Your task to perform on an android device: Open Youtube and go to the subscriptions tab Image 0: 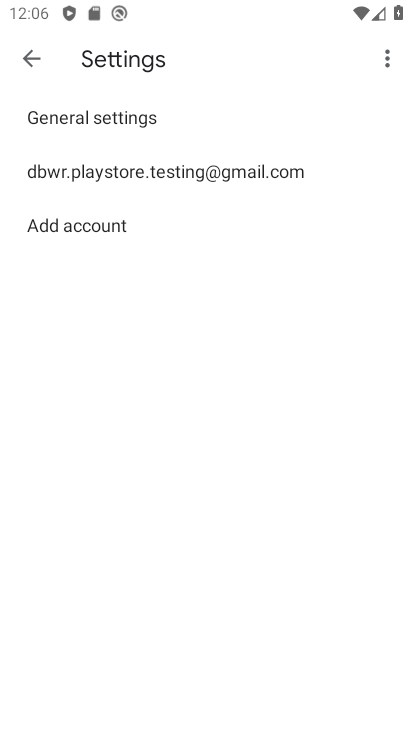
Step 0: press back button
Your task to perform on an android device: Open Youtube and go to the subscriptions tab Image 1: 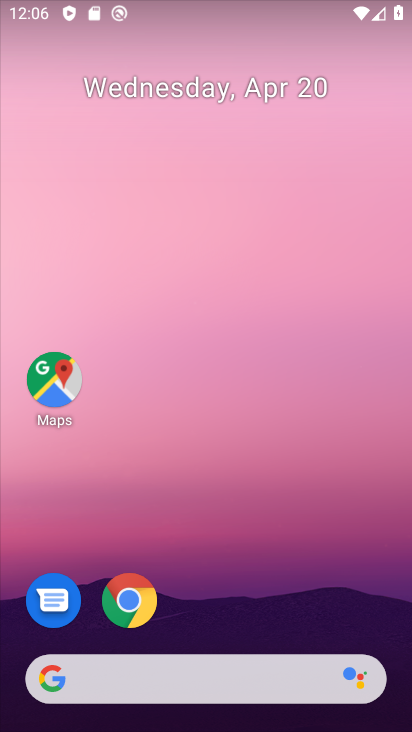
Step 1: drag from (208, 622) to (281, 67)
Your task to perform on an android device: Open Youtube and go to the subscriptions tab Image 2: 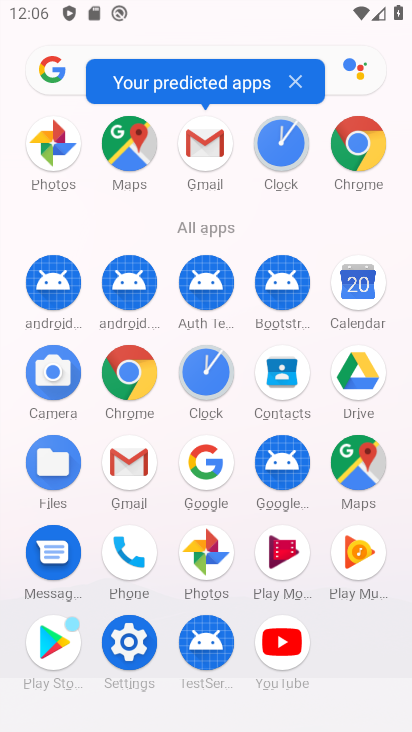
Step 2: click (293, 642)
Your task to perform on an android device: Open Youtube and go to the subscriptions tab Image 3: 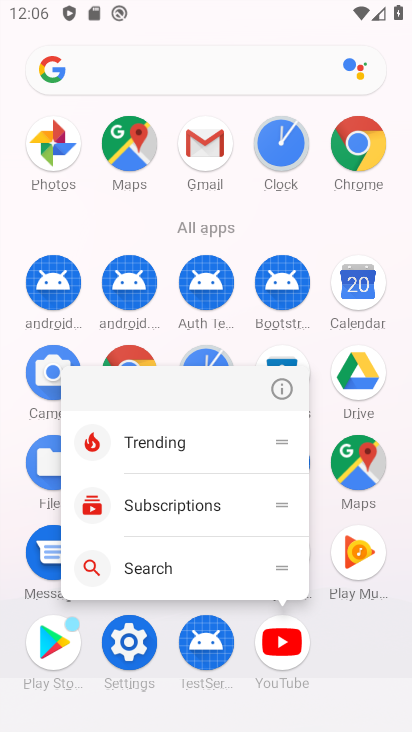
Step 3: click (285, 641)
Your task to perform on an android device: Open Youtube and go to the subscriptions tab Image 4: 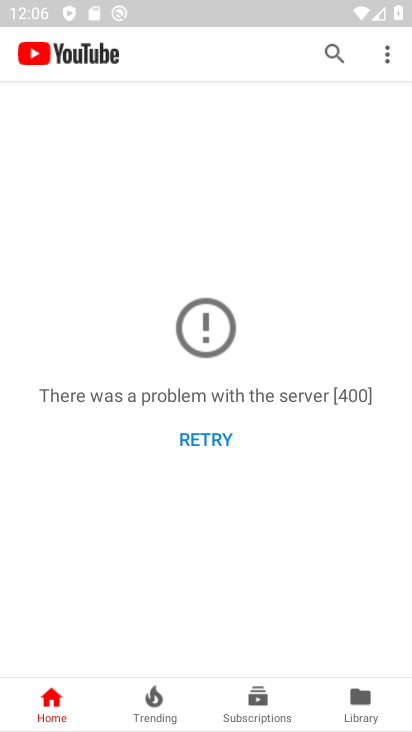
Step 4: click (263, 703)
Your task to perform on an android device: Open Youtube and go to the subscriptions tab Image 5: 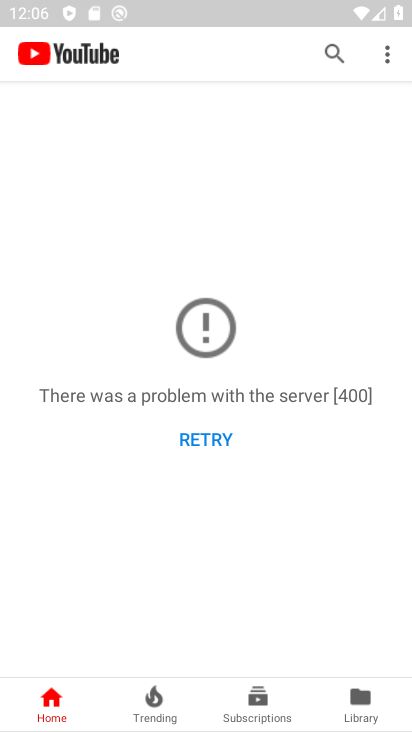
Step 5: click (257, 695)
Your task to perform on an android device: Open Youtube and go to the subscriptions tab Image 6: 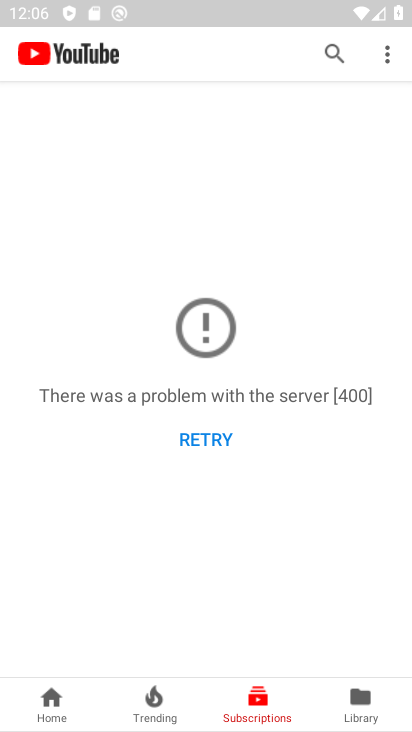
Step 6: task complete